Your task to perform on an android device: turn on airplane mode Image 0: 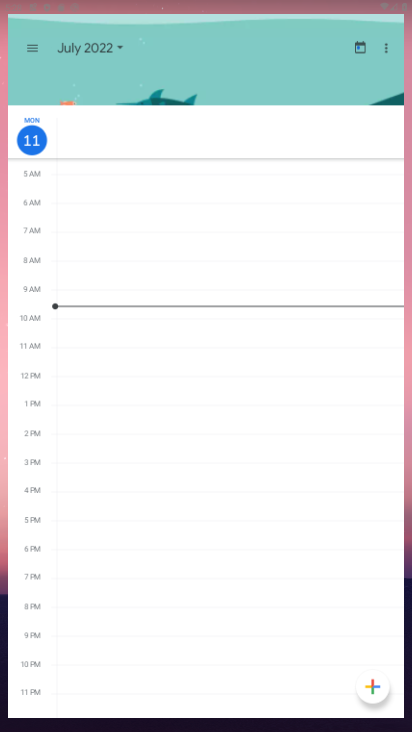
Step 0: drag from (336, 640) to (322, 172)
Your task to perform on an android device: turn on airplane mode Image 1: 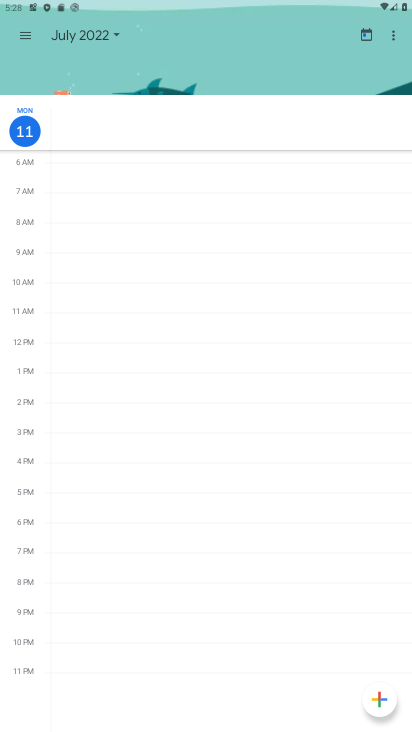
Step 1: press home button
Your task to perform on an android device: turn on airplane mode Image 2: 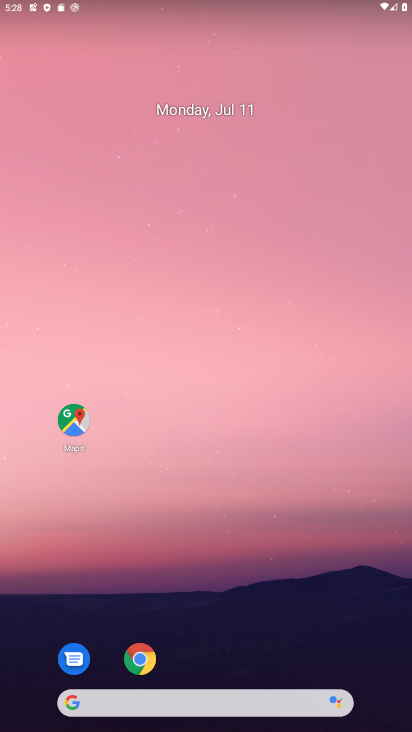
Step 2: drag from (341, 655) to (285, 19)
Your task to perform on an android device: turn on airplane mode Image 3: 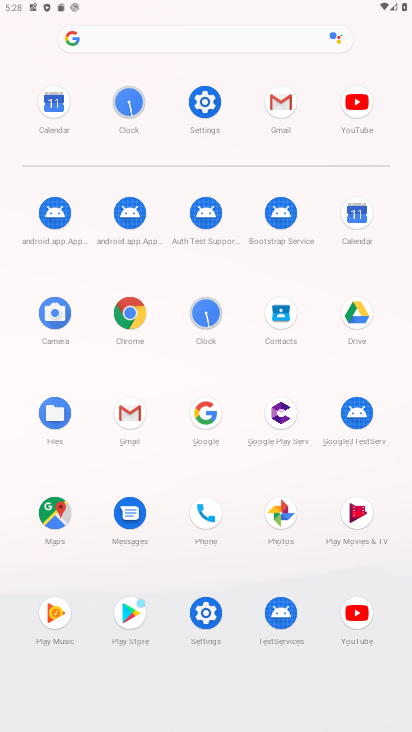
Step 3: click (205, 613)
Your task to perform on an android device: turn on airplane mode Image 4: 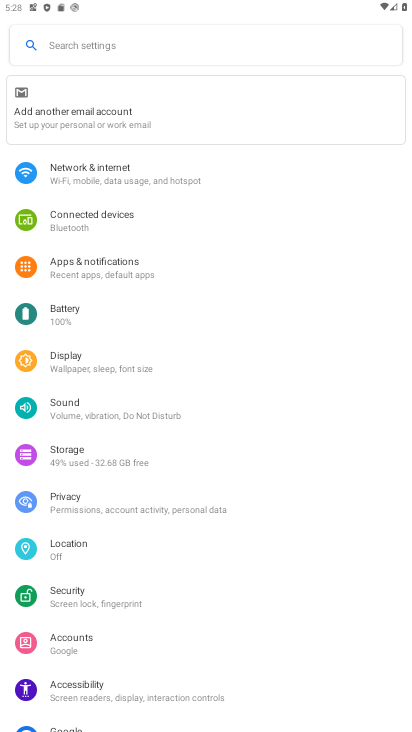
Step 4: click (73, 167)
Your task to perform on an android device: turn on airplane mode Image 5: 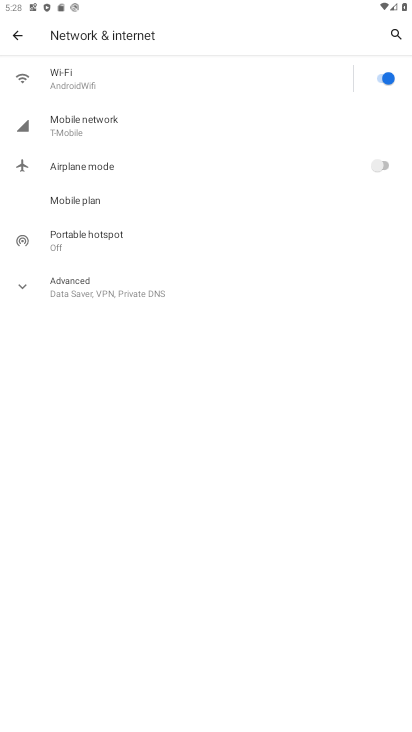
Step 5: click (384, 168)
Your task to perform on an android device: turn on airplane mode Image 6: 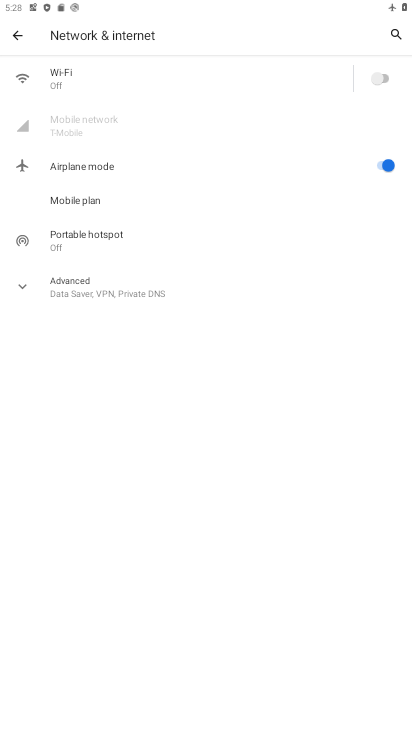
Step 6: task complete